Your task to perform on an android device: toggle airplane mode Image 0: 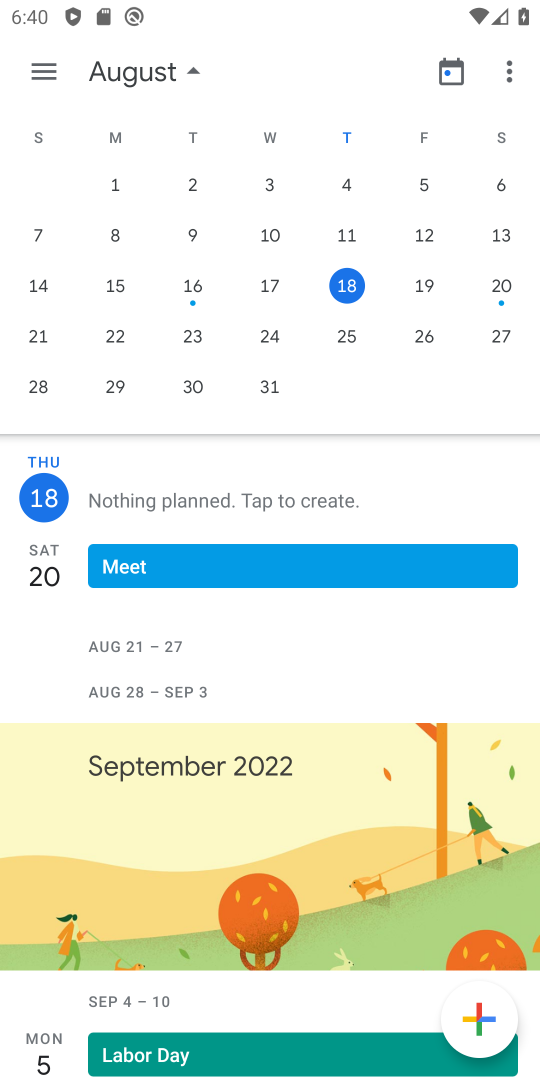
Step 0: press home button
Your task to perform on an android device: toggle airplane mode Image 1: 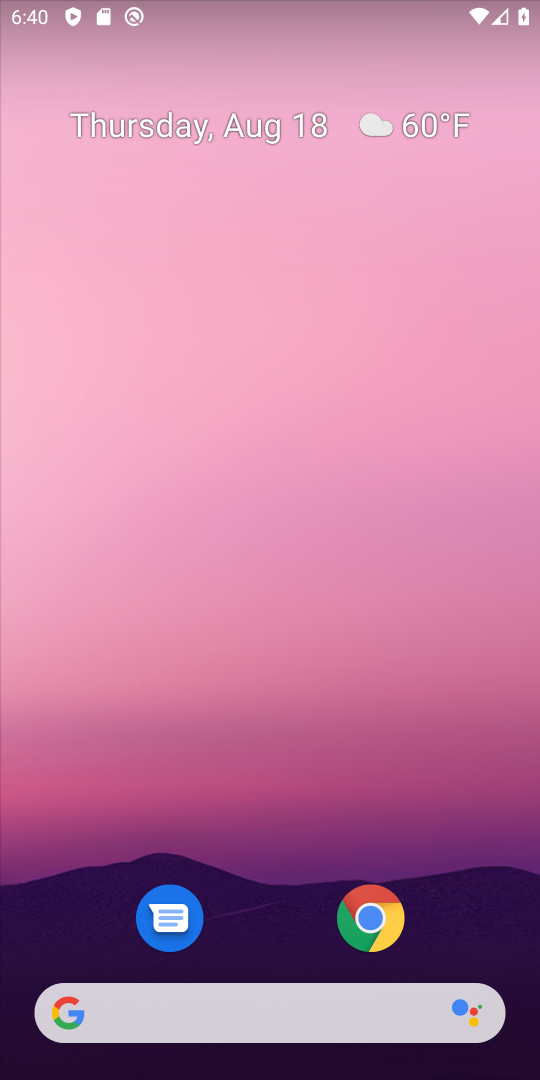
Step 1: drag from (323, 260) to (350, 892)
Your task to perform on an android device: toggle airplane mode Image 2: 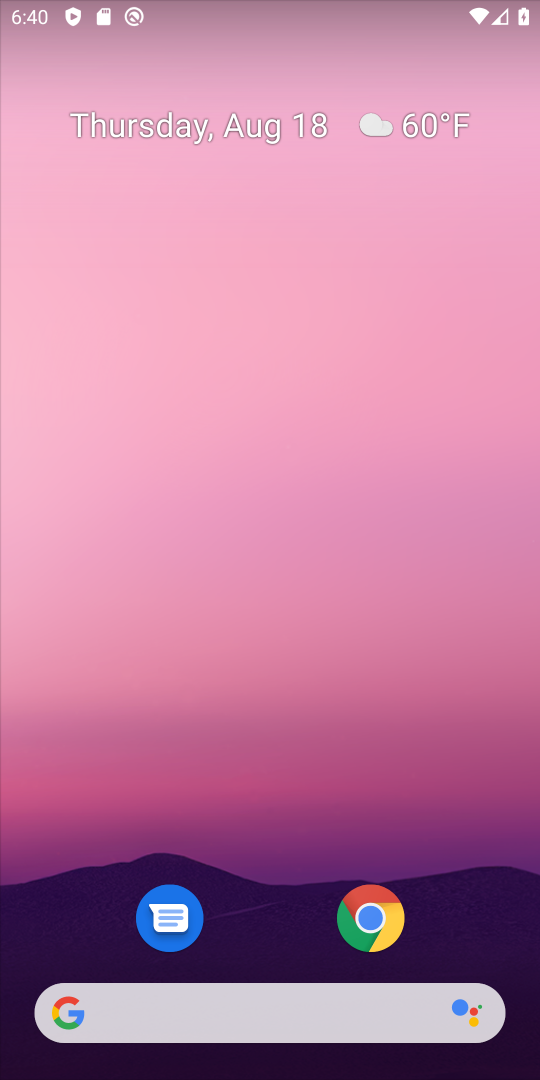
Step 2: drag from (280, 11) to (335, 863)
Your task to perform on an android device: toggle airplane mode Image 3: 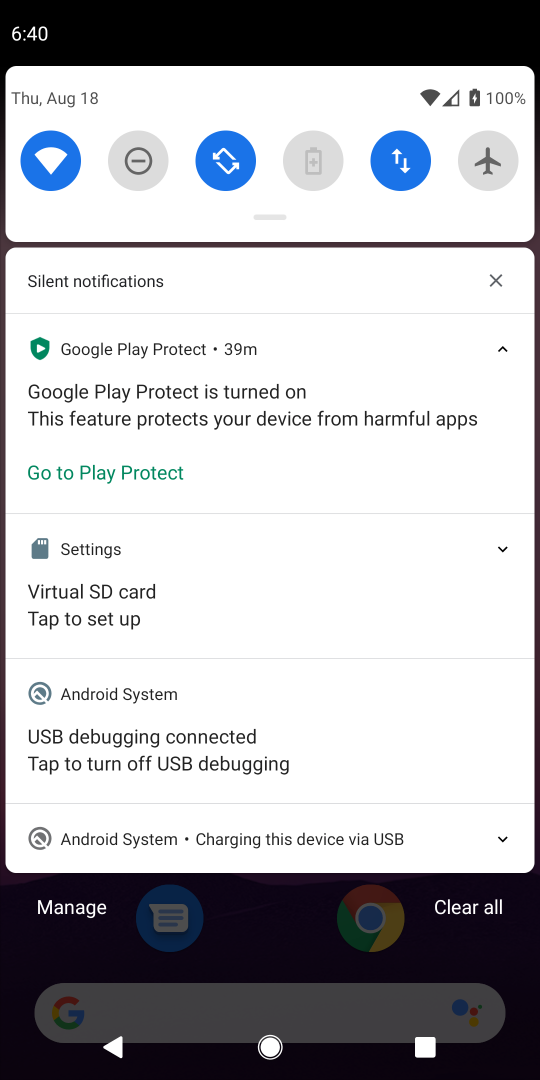
Step 3: click (490, 156)
Your task to perform on an android device: toggle airplane mode Image 4: 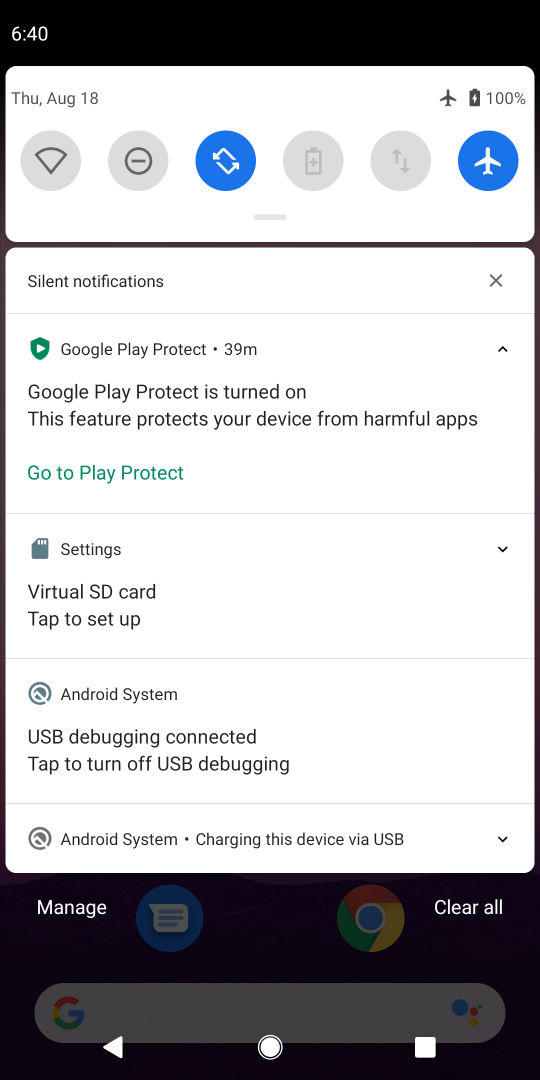
Step 4: task complete